Your task to perform on an android device: Go to wifi settings Image 0: 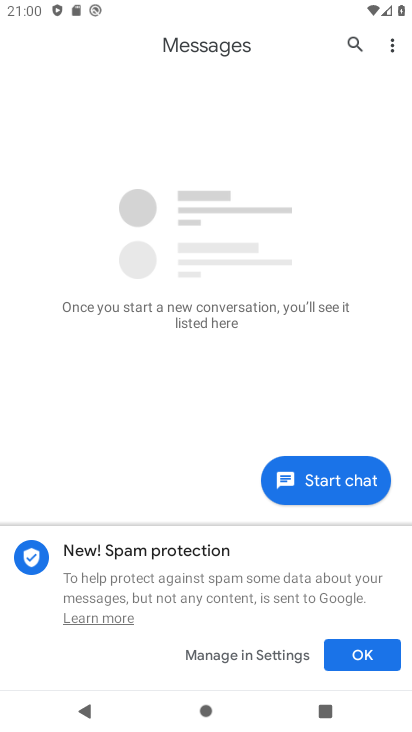
Step 0: press home button
Your task to perform on an android device: Go to wifi settings Image 1: 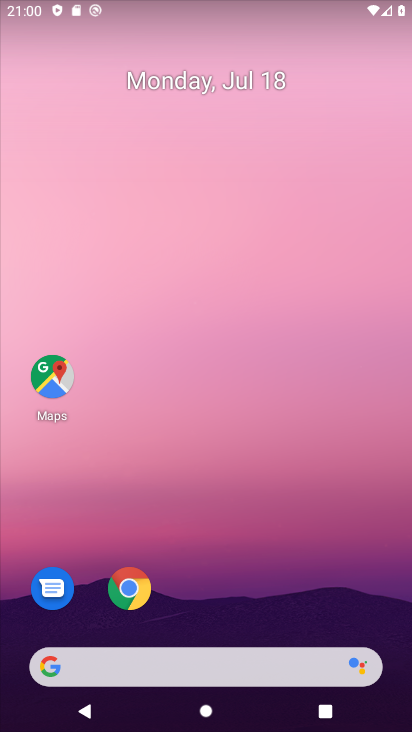
Step 1: drag from (280, 567) to (55, 10)
Your task to perform on an android device: Go to wifi settings Image 2: 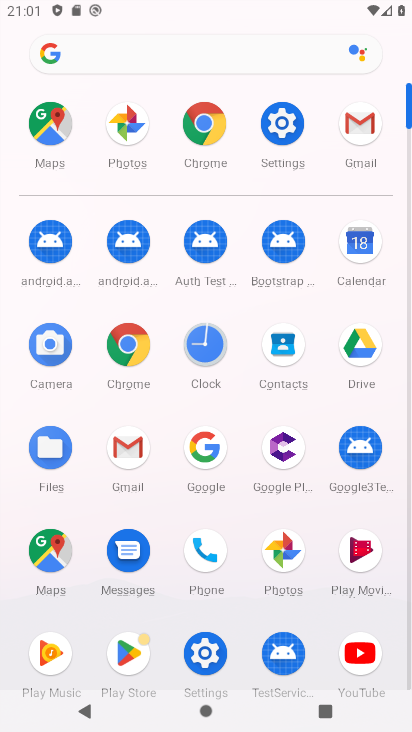
Step 2: click (197, 674)
Your task to perform on an android device: Go to wifi settings Image 3: 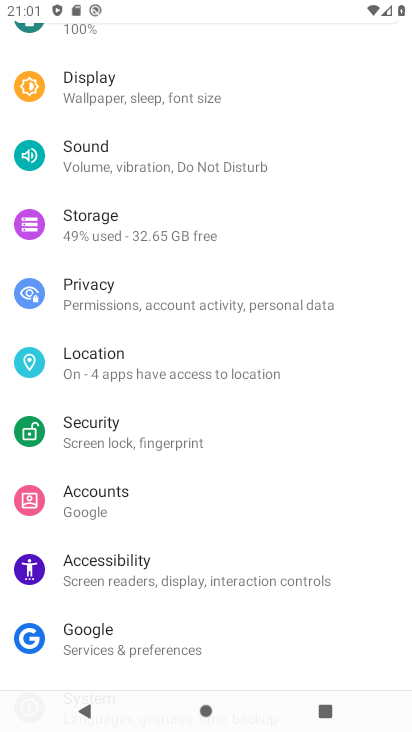
Step 3: drag from (154, 149) to (268, 709)
Your task to perform on an android device: Go to wifi settings Image 4: 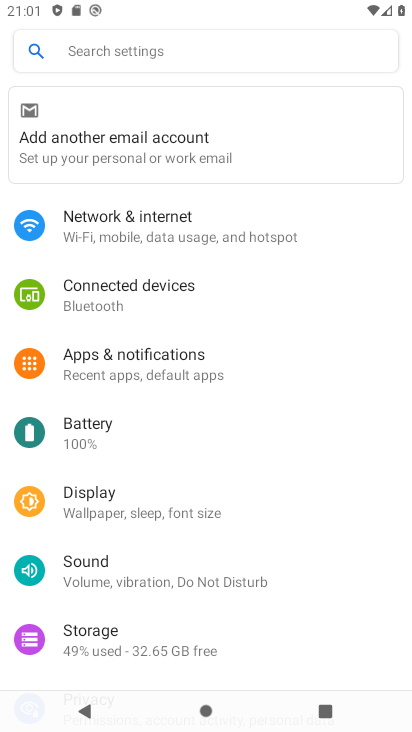
Step 4: click (59, 227)
Your task to perform on an android device: Go to wifi settings Image 5: 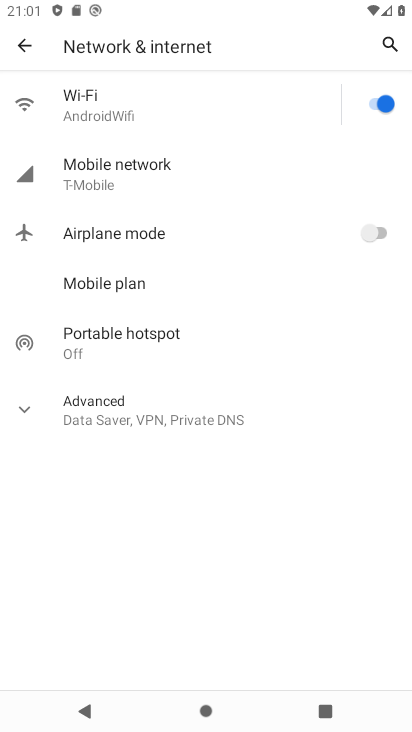
Step 5: click (86, 113)
Your task to perform on an android device: Go to wifi settings Image 6: 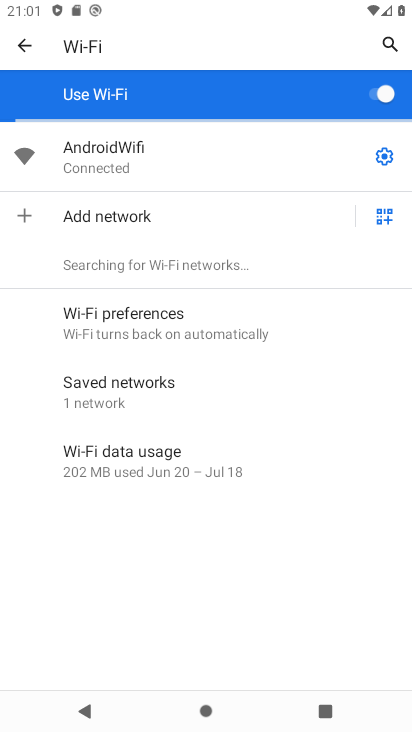
Step 6: task complete